Your task to perform on an android device: Find coffee shops on Maps Image 0: 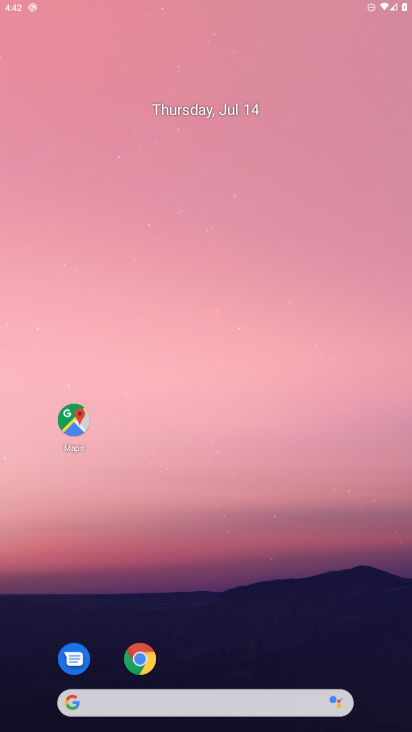
Step 0: press home button
Your task to perform on an android device: Find coffee shops on Maps Image 1: 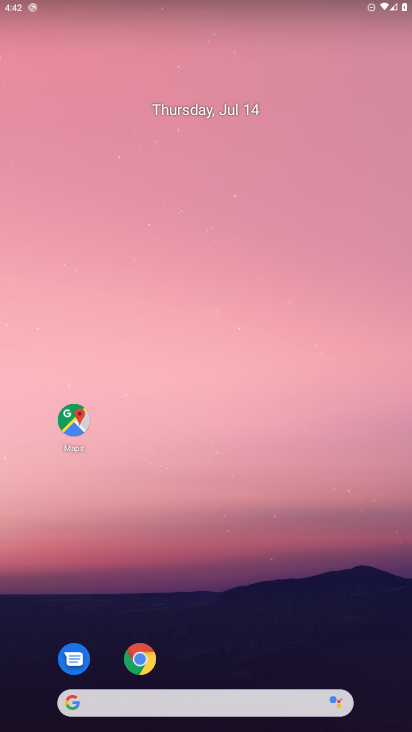
Step 1: click (73, 414)
Your task to perform on an android device: Find coffee shops on Maps Image 2: 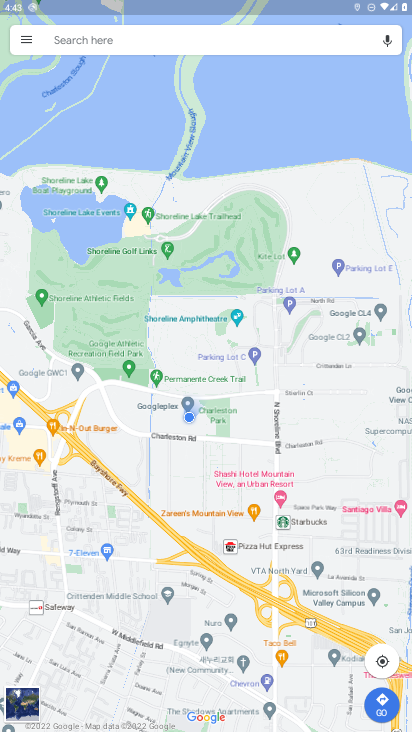
Step 2: click (94, 35)
Your task to perform on an android device: Find coffee shops on Maps Image 3: 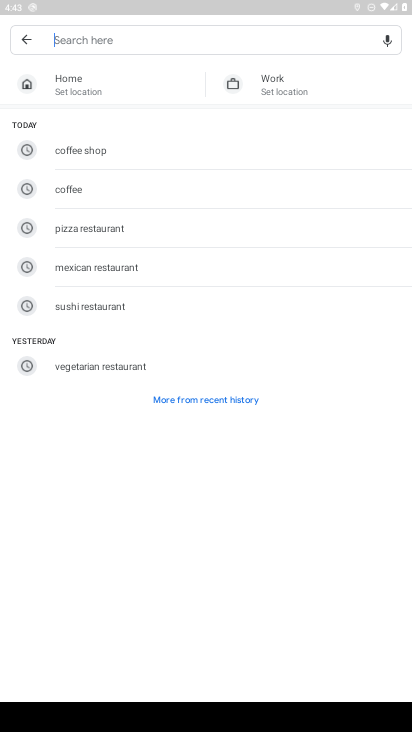
Step 3: click (84, 187)
Your task to perform on an android device: Find coffee shops on Maps Image 4: 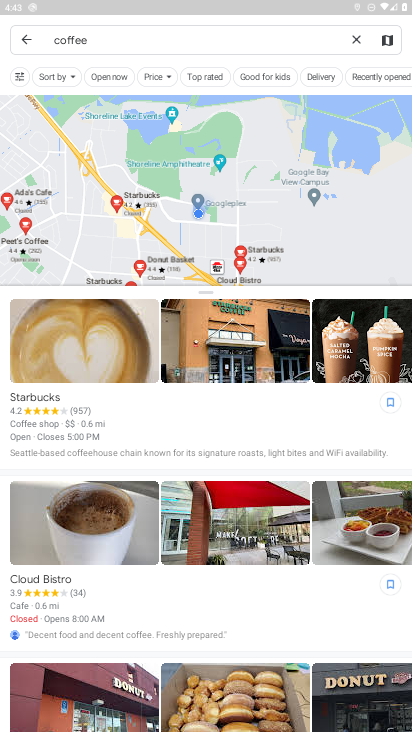
Step 4: task complete